Your task to perform on an android device: add a contact in the contacts app Image 0: 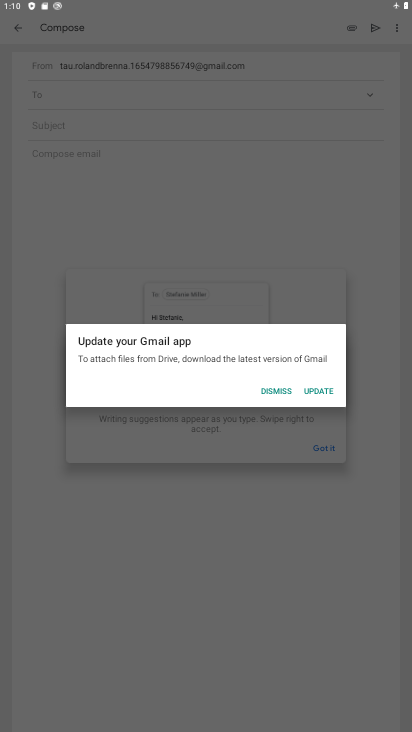
Step 0: press home button
Your task to perform on an android device: add a contact in the contacts app Image 1: 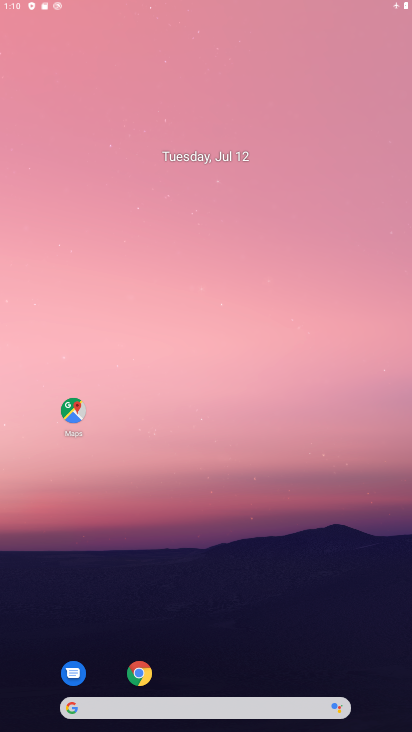
Step 1: drag from (253, 678) to (233, 295)
Your task to perform on an android device: add a contact in the contacts app Image 2: 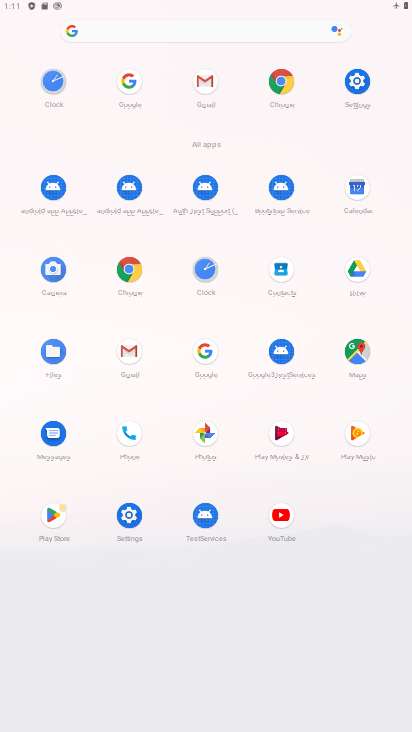
Step 2: click (139, 425)
Your task to perform on an android device: add a contact in the contacts app Image 3: 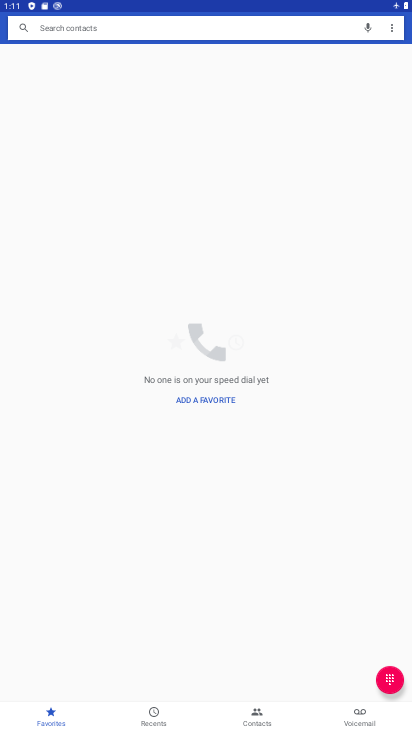
Step 3: click (218, 396)
Your task to perform on an android device: add a contact in the contacts app Image 4: 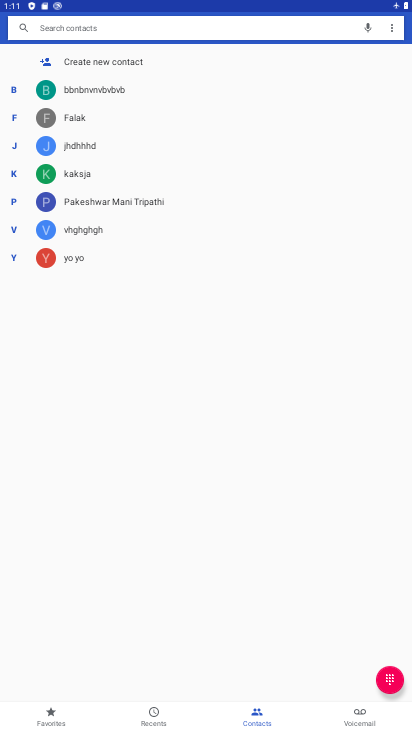
Step 4: click (139, 58)
Your task to perform on an android device: add a contact in the contacts app Image 5: 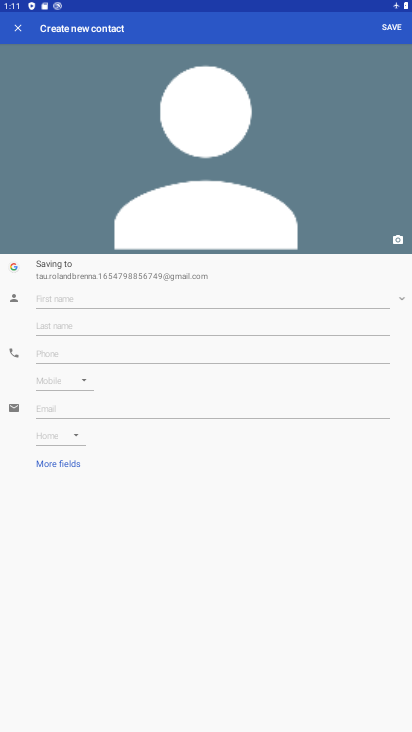
Step 5: click (167, 287)
Your task to perform on an android device: add a contact in the contacts app Image 6: 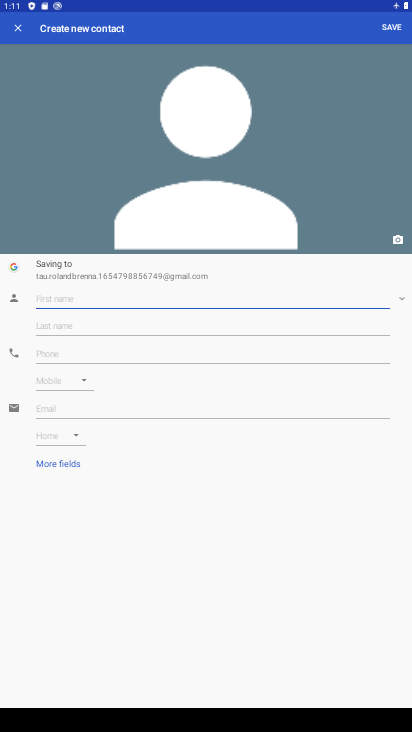
Step 6: type "delhi love "
Your task to perform on an android device: add a contact in the contacts app Image 7: 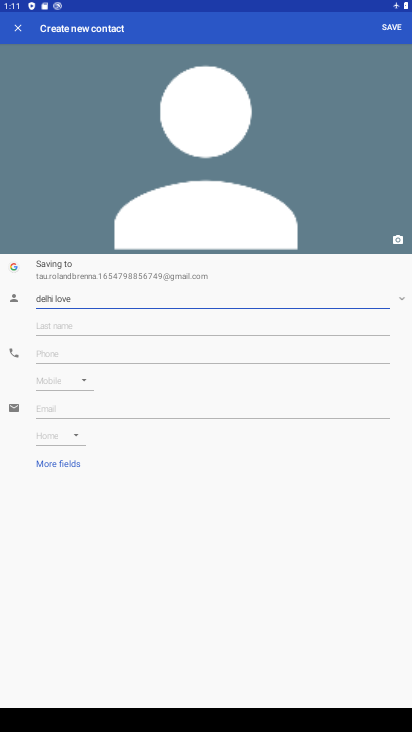
Step 7: click (147, 351)
Your task to perform on an android device: add a contact in the contacts app Image 8: 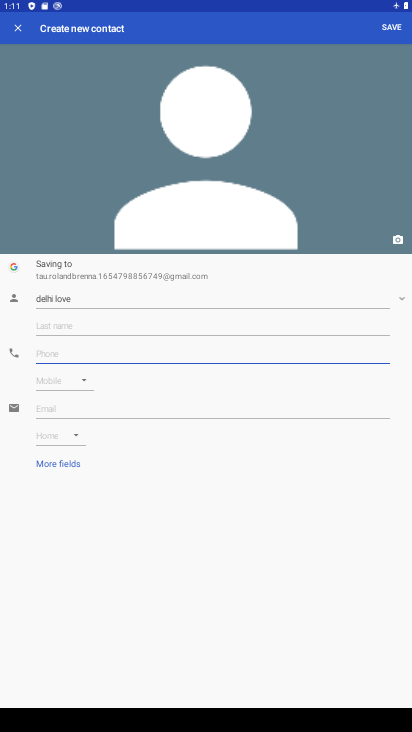
Step 8: type "98996563213344 "
Your task to perform on an android device: add a contact in the contacts app Image 9: 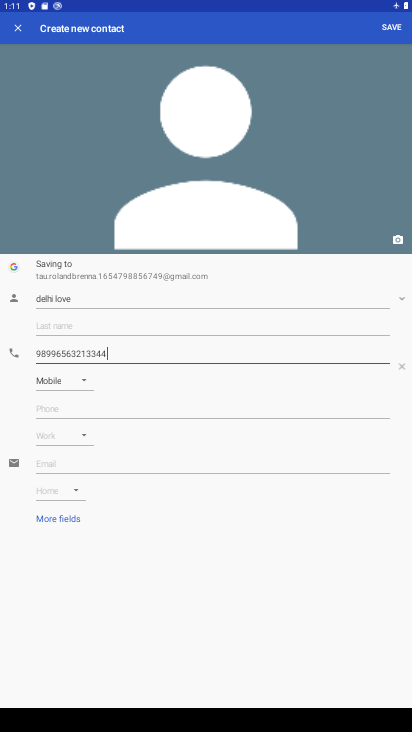
Step 9: click (391, 19)
Your task to perform on an android device: add a contact in the contacts app Image 10: 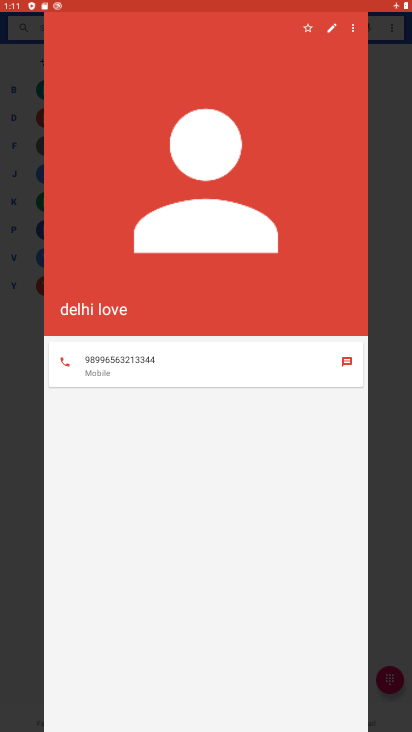
Step 10: task complete